Your task to perform on an android device: How do I get to the nearest Target? Image 0: 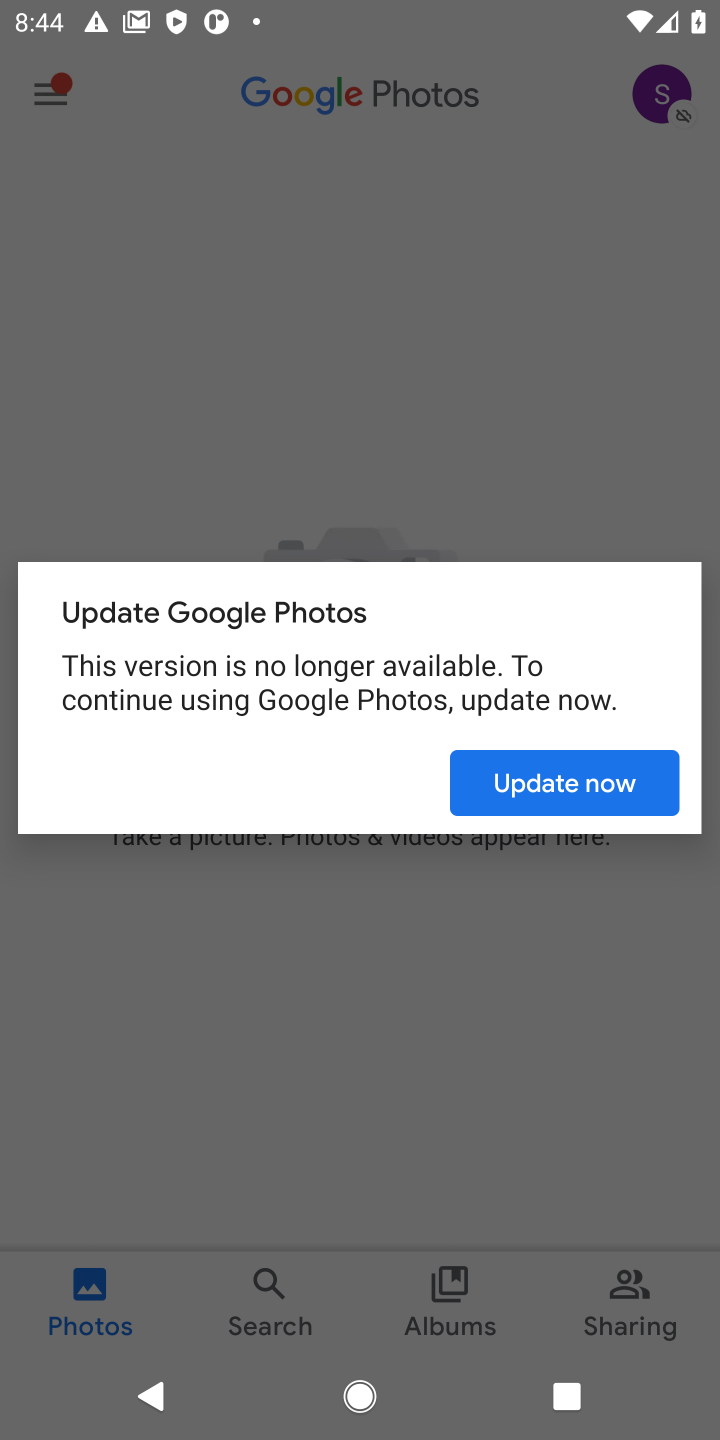
Step 0: press home button
Your task to perform on an android device: How do I get to the nearest Target? Image 1: 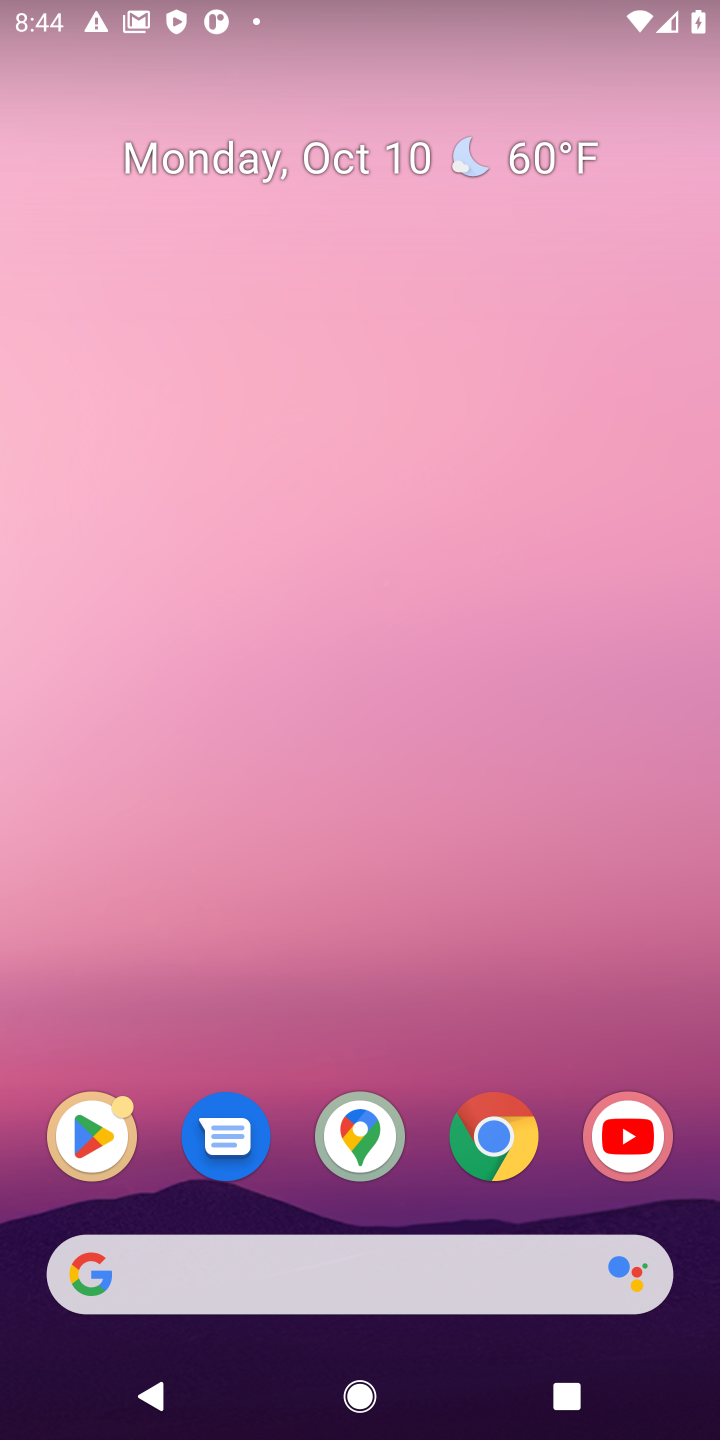
Step 1: click (225, 1256)
Your task to perform on an android device: How do I get to the nearest Target? Image 2: 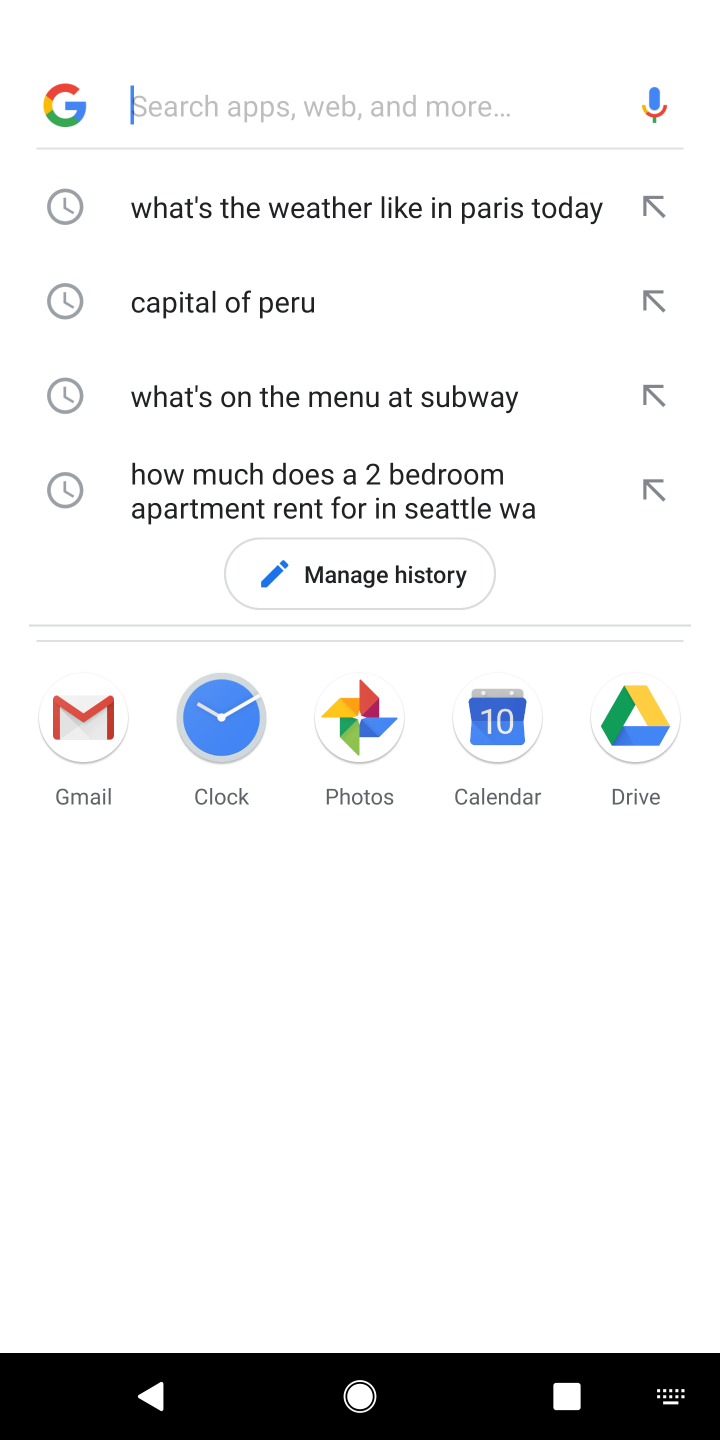
Step 2: type "How do I get to the nearest Target?"
Your task to perform on an android device: How do I get to the nearest Target? Image 3: 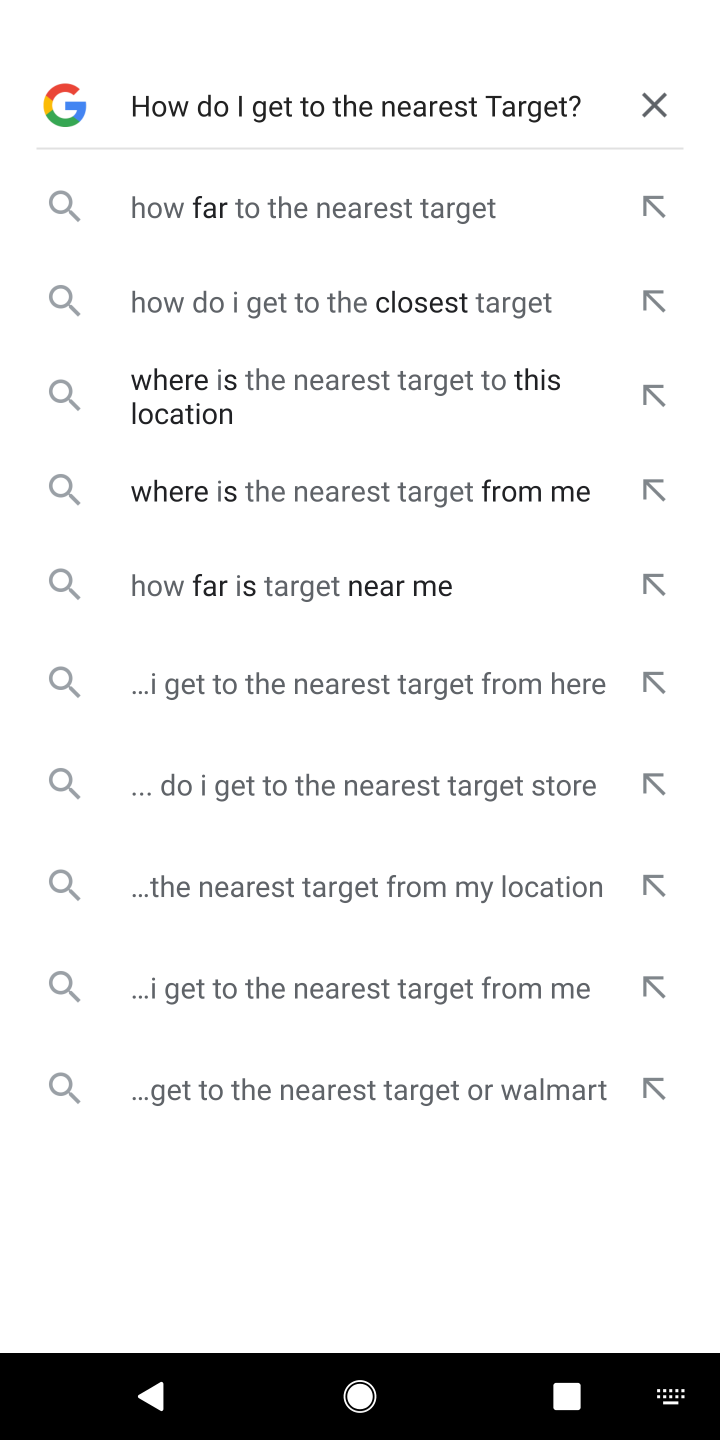
Step 3: click (325, 295)
Your task to perform on an android device: How do I get to the nearest Target? Image 4: 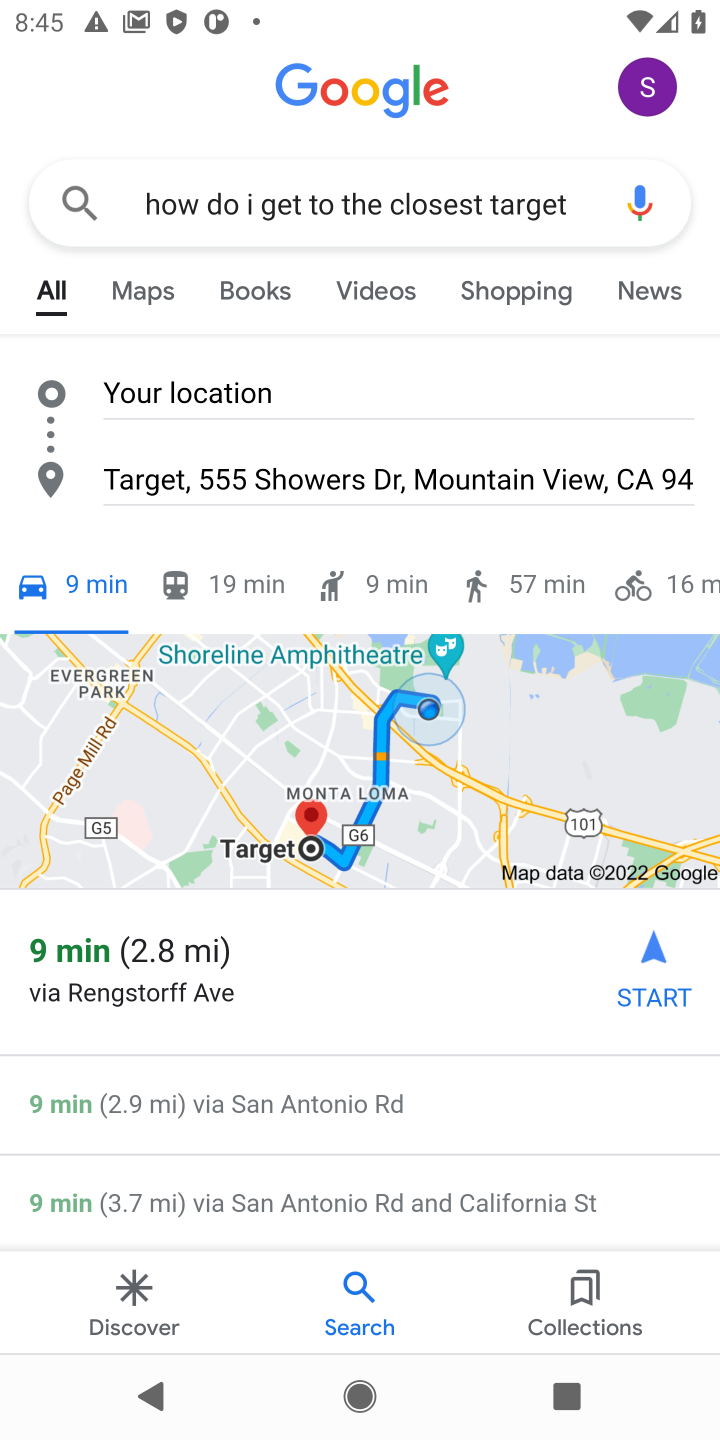
Step 4: task complete